Your task to perform on an android device: When is my next meeting? Image 0: 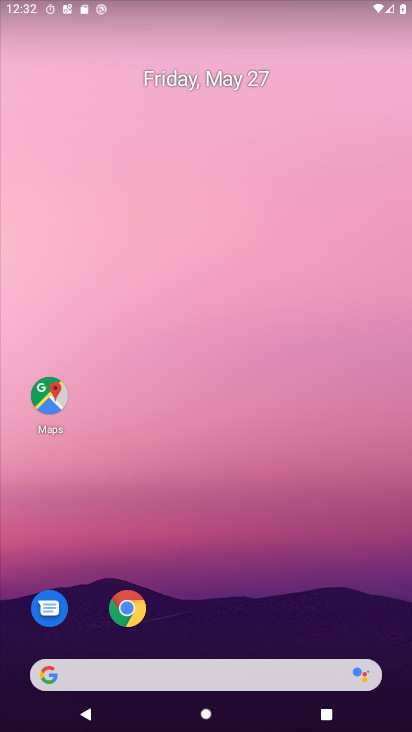
Step 0: drag from (371, 613) to (333, 316)
Your task to perform on an android device: When is my next meeting? Image 1: 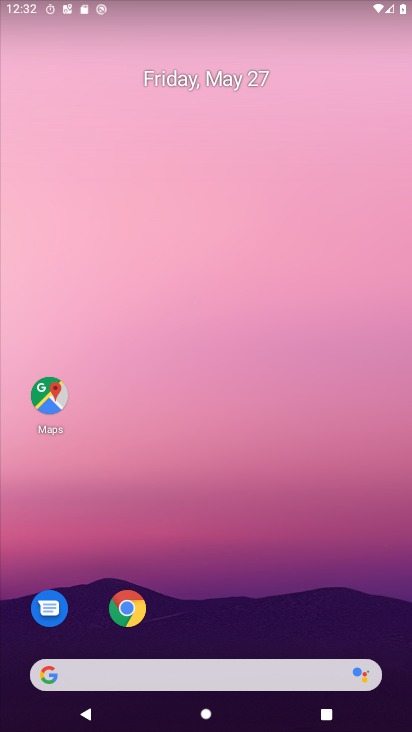
Step 1: drag from (376, 652) to (284, 170)
Your task to perform on an android device: When is my next meeting? Image 2: 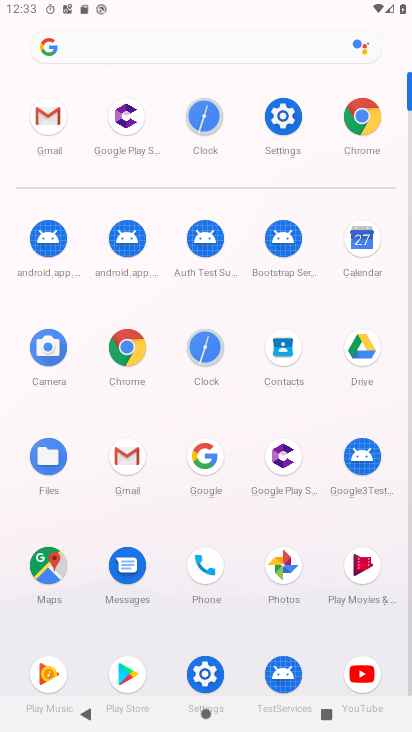
Step 2: click (273, 123)
Your task to perform on an android device: When is my next meeting? Image 3: 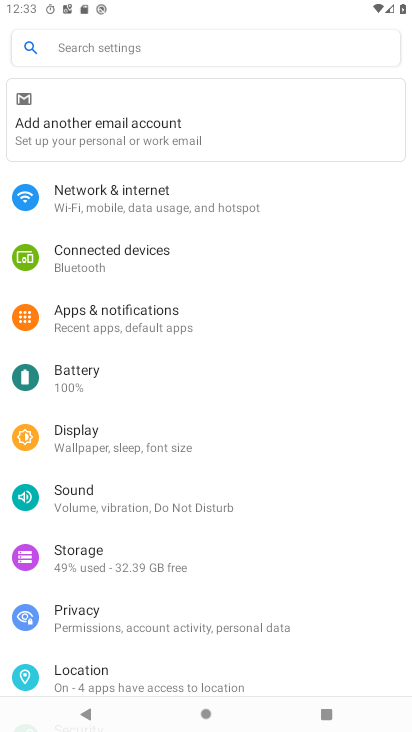
Step 3: press home button
Your task to perform on an android device: When is my next meeting? Image 4: 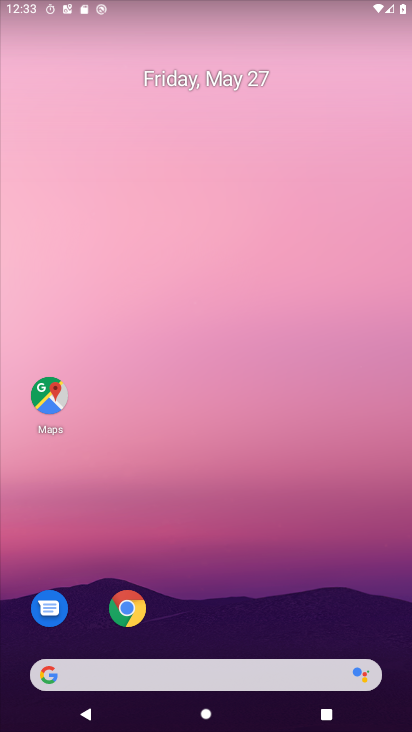
Step 4: drag from (363, 438) to (331, 310)
Your task to perform on an android device: When is my next meeting? Image 5: 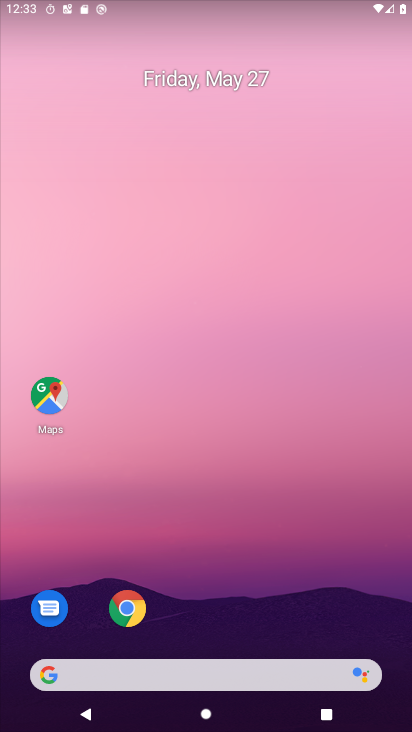
Step 5: drag from (392, 701) to (325, 231)
Your task to perform on an android device: When is my next meeting? Image 6: 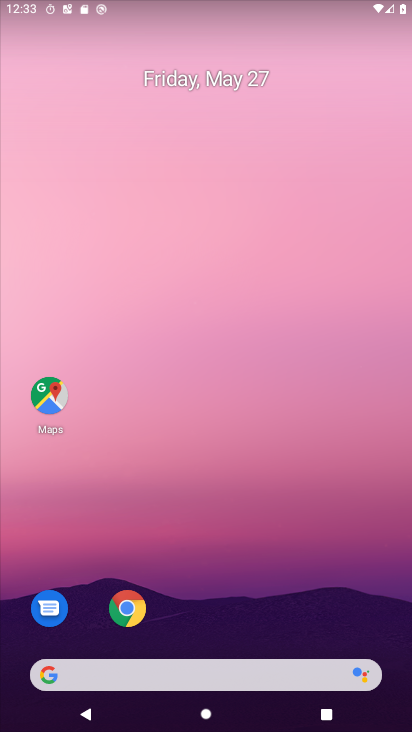
Step 6: drag from (396, 698) to (240, 95)
Your task to perform on an android device: When is my next meeting? Image 7: 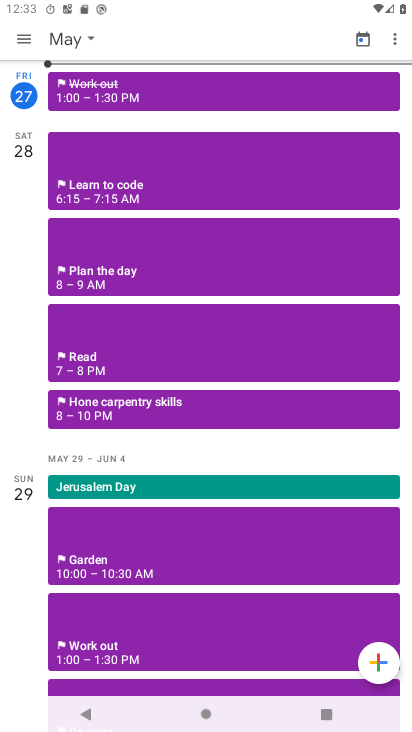
Step 7: click (93, 38)
Your task to perform on an android device: When is my next meeting? Image 8: 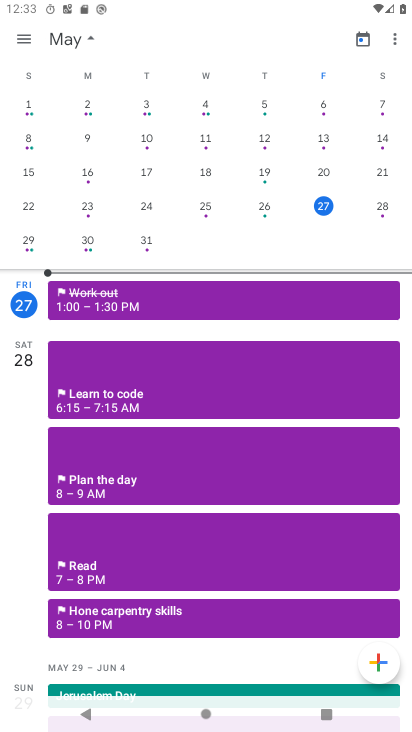
Step 8: click (319, 206)
Your task to perform on an android device: When is my next meeting? Image 9: 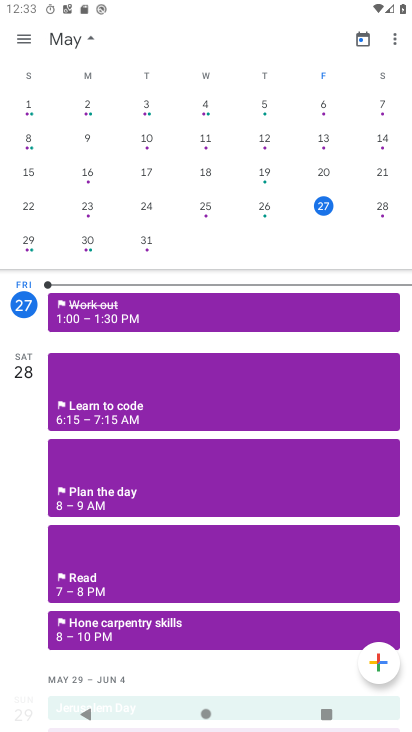
Step 9: click (27, 38)
Your task to perform on an android device: When is my next meeting? Image 10: 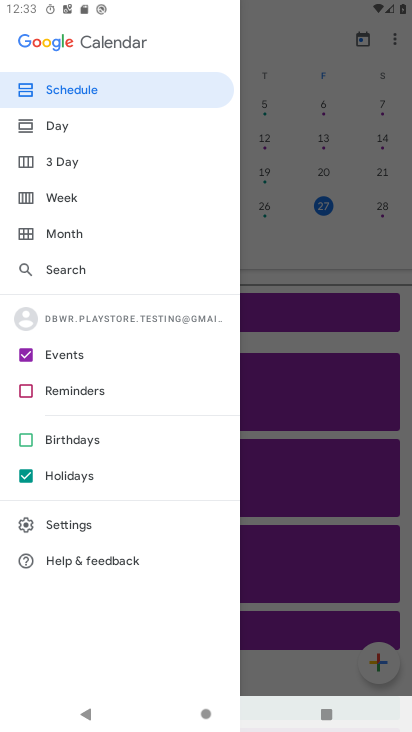
Step 10: click (24, 474)
Your task to perform on an android device: When is my next meeting? Image 11: 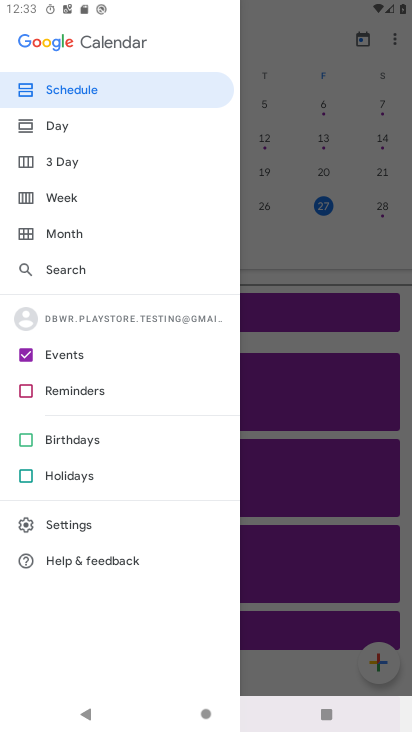
Step 11: click (70, 88)
Your task to perform on an android device: When is my next meeting? Image 12: 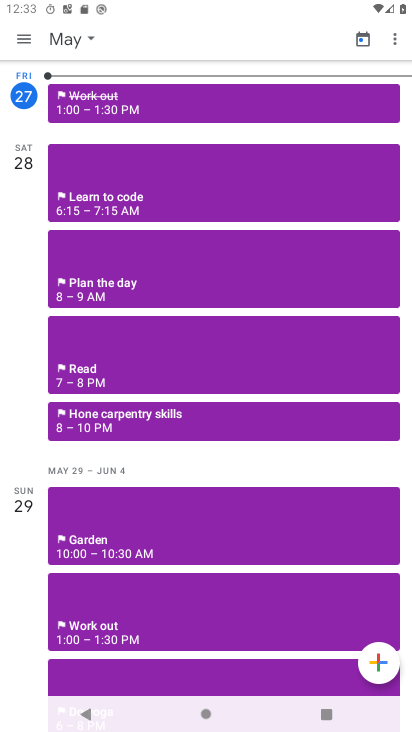
Step 12: task complete